Your task to perform on an android device: delete location history Image 0: 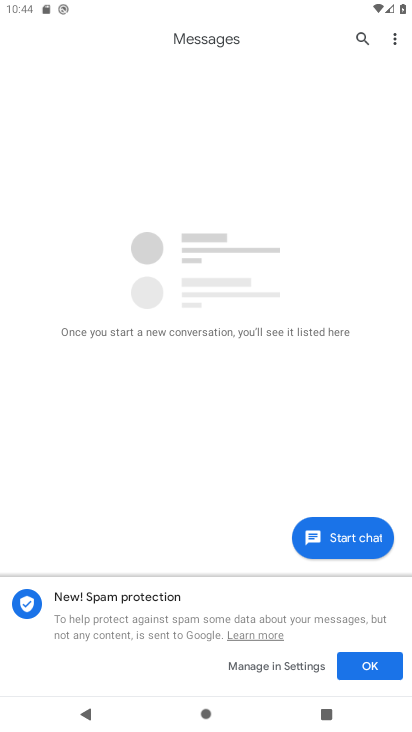
Step 0: press home button
Your task to perform on an android device: delete location history Image 1: 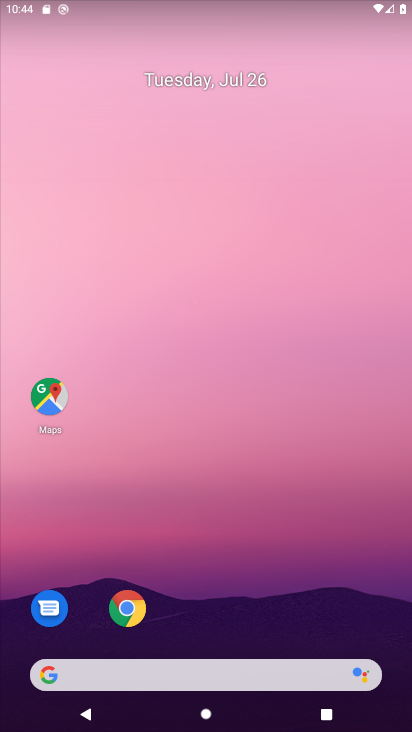
Step 1: drag from (274, 603) to (299, 32)
Your task to perform on an android device: delete location history Image 2: 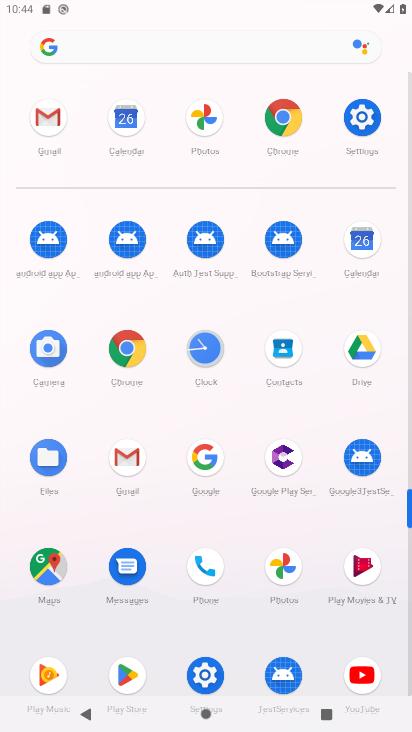
Step 2: click (49, 575)
Your task to perform on an android device: delete location history Image 3: 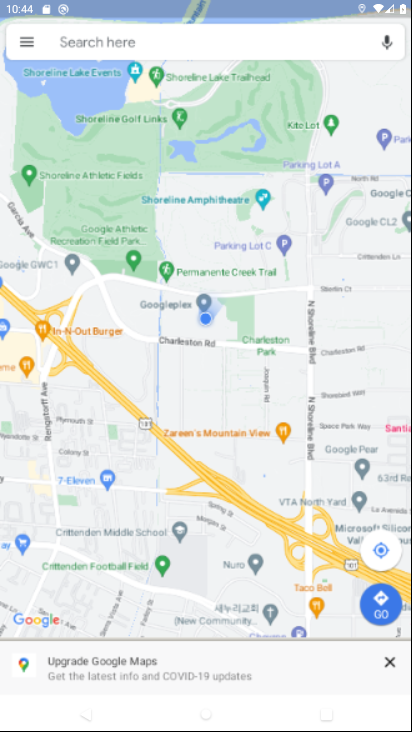
Step 3: click (33, 40)
Your task to perform on an android device: delete location history Image 4: 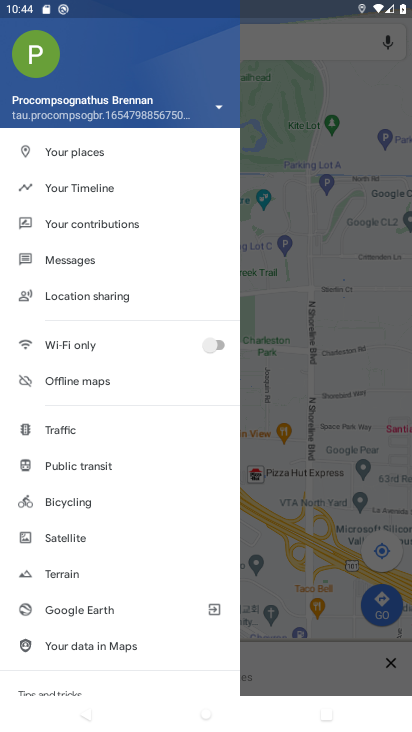
Step 4: drag from (81, 611) to (143, 231)
Your task to perform on an android device: delete location history Image 5: 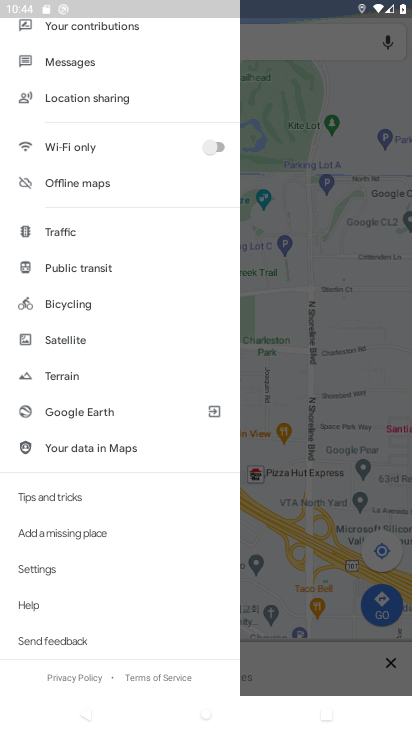
Step 5: click (50, 574)
Your task to perform on an android device: delete location history Image 6: 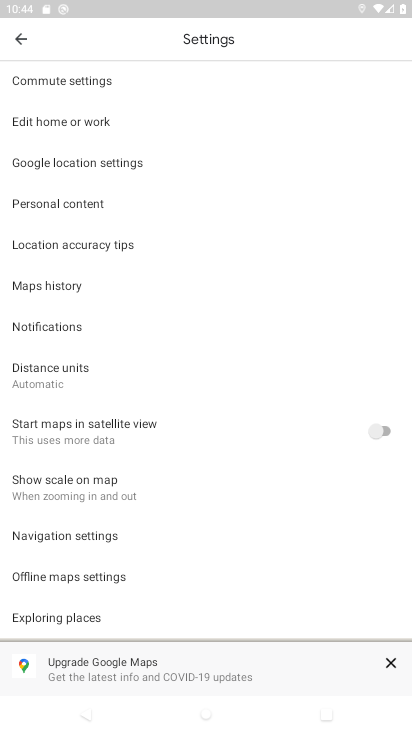
Step 6: click (67, 281)
Your task to perform on an android device: delete location history Image 7: 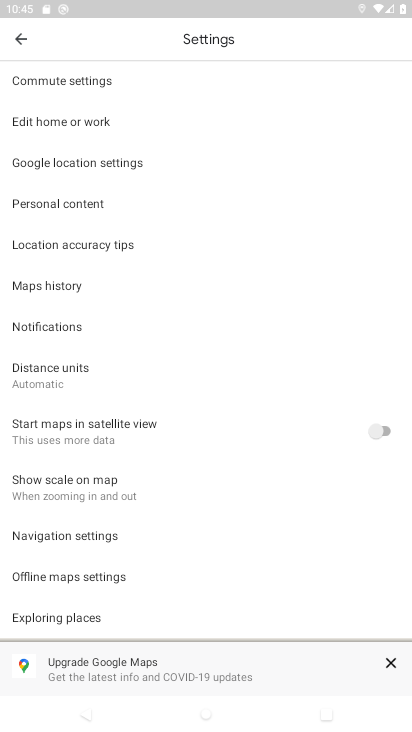
Step 7: click (67, 279)
Your task to perform on an android device: delete location history Image 8: 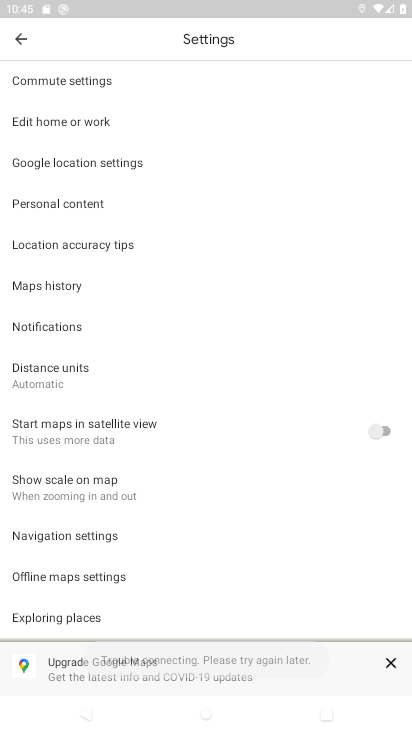
Step 8: click (53, 280)
Your task to perform on an android device: delete location history Image 9: 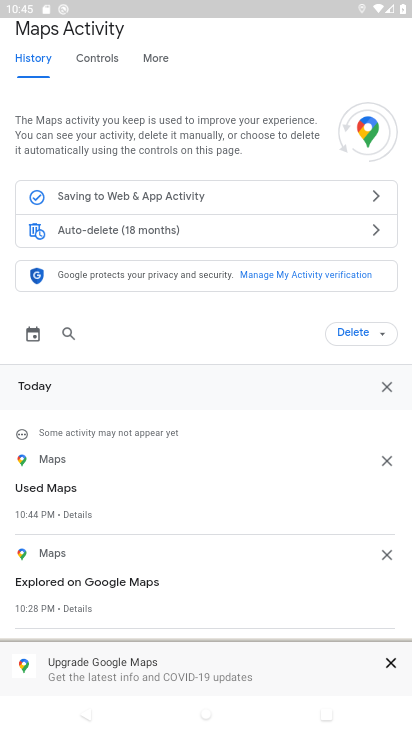
Step 9: click (382, 333)
Your task to perform on an android device: delete location history Image 10: 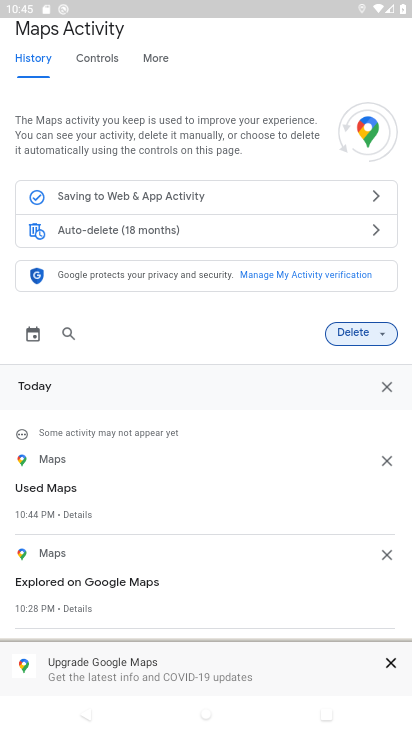
Step 10: click (373, 326)
Your task to perform on an android device: delete location history Image 11: 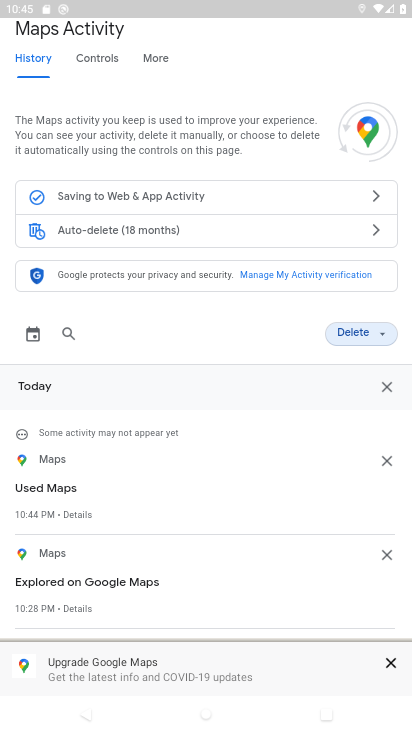
Step 11: click (387, 336)
Your task to perform on an android device: delete location history Image 12: 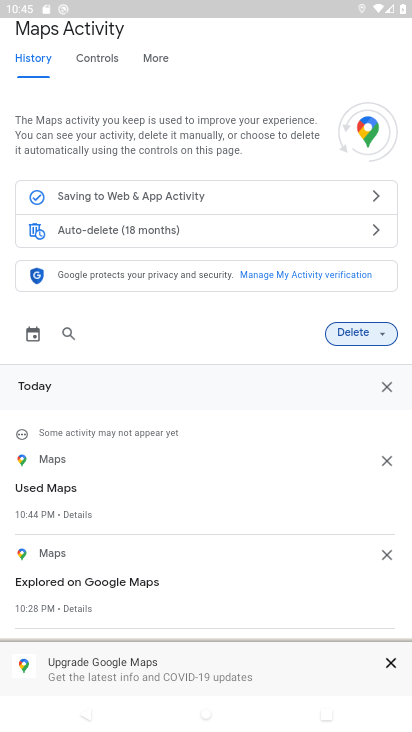
Step 12: click (384, 333)
Your task to perform on an android device: delete location history Image 13: 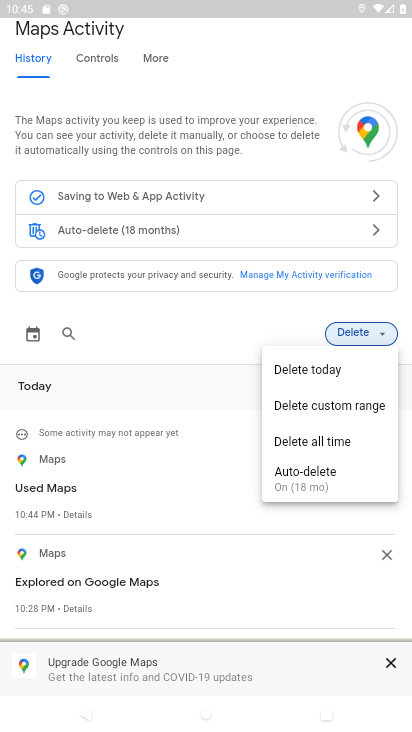
Step 13: click (313, 442)
Your task to perform on an android device: delete location history Image 14: 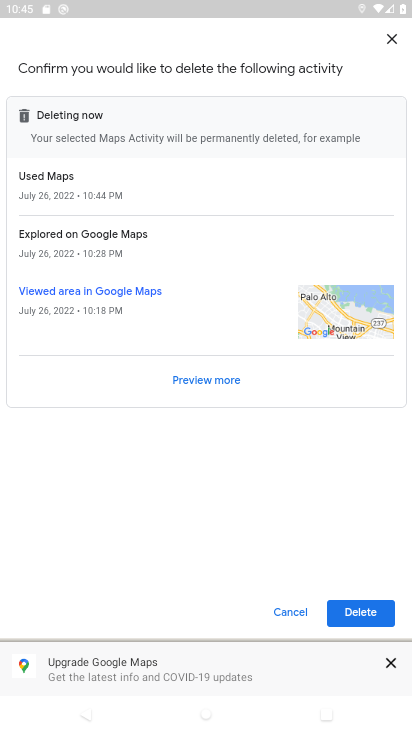
Step 14: click (372, 610)
Your task to perform on an android device: delete location history Image 15: 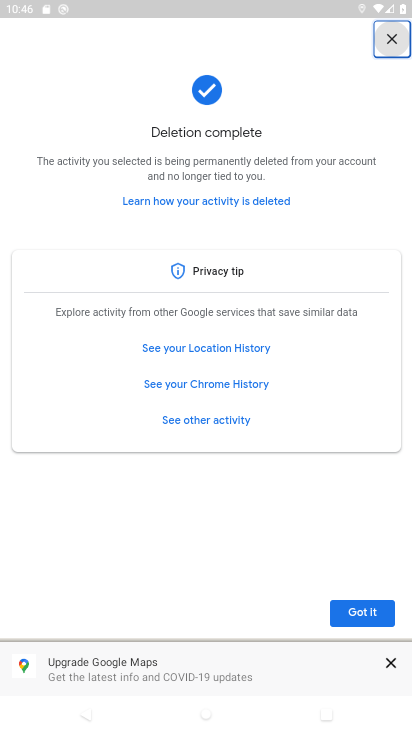
Step 15: task complete